Your task to perform on an android device: Open my contact list Image 0: 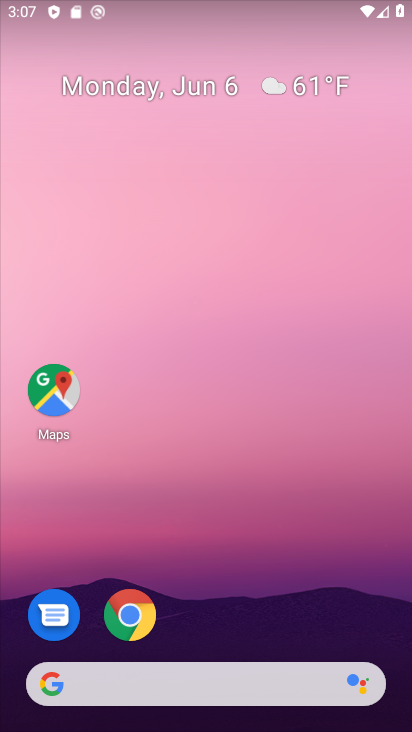
Step 0: drag from (167, 514) to (257, 31)
Your task to perform on an android device: Open my contact list Image 1: 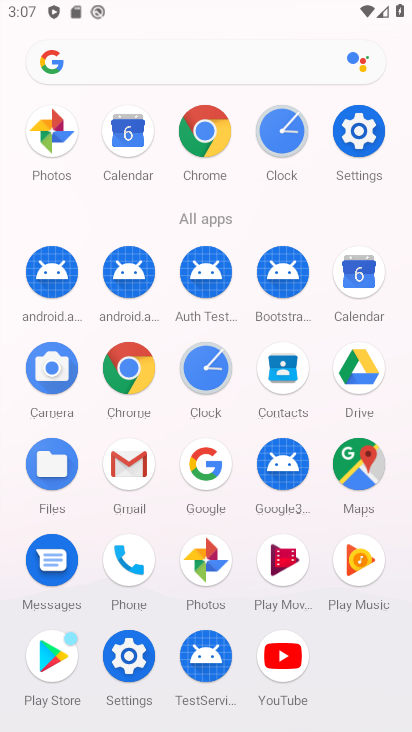
Step 1: click (128, 564)
Your task to perform on an android device: Open my contact list Image 2: 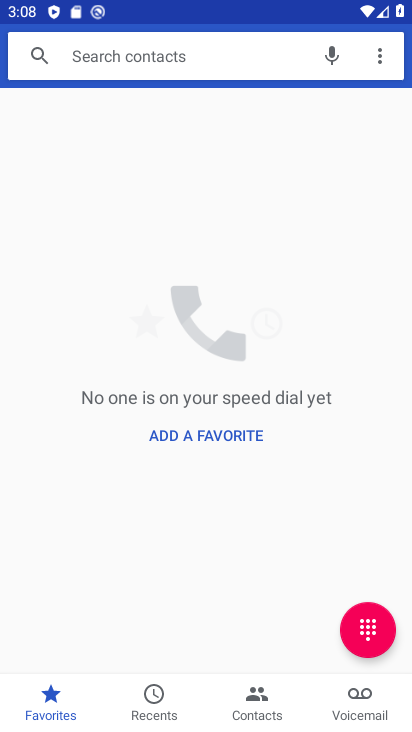
Step 2: click (262, 693)
Your task to perform on an android device: Open my contact list Image 3: 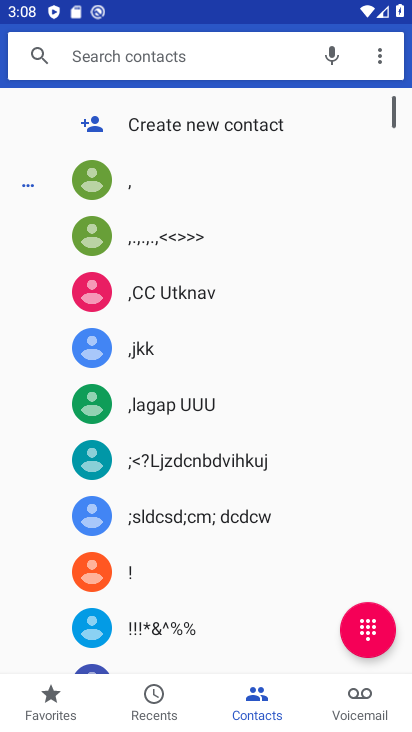
Step 3: task complete